Your task to perform on an android device: Open Yahoo.com Image 0: 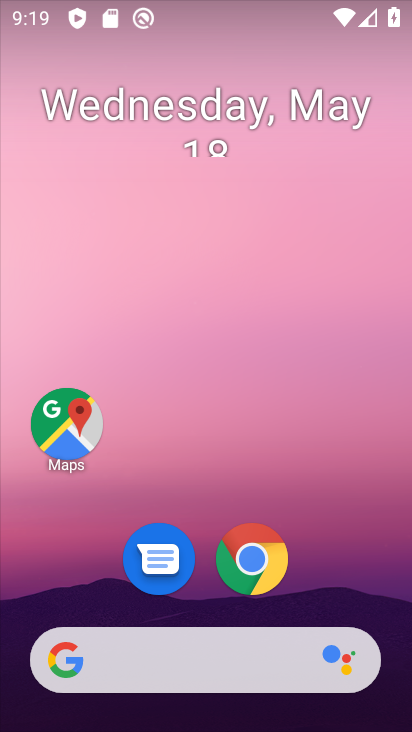
Step 0: drag from (343, 578) to (237, 19)
Your task to perform on an android device: Open Yahoo.com Image 1: 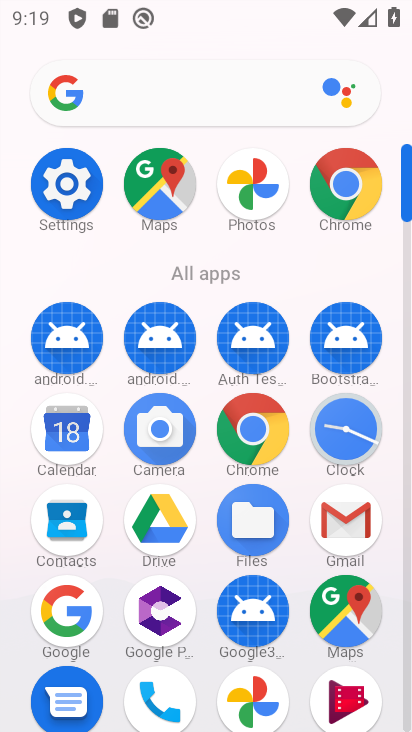
Step 1: drag from (6, 505) to (7, 288)
Your task to perform on an android device: Open Yahoo.com Image 2: 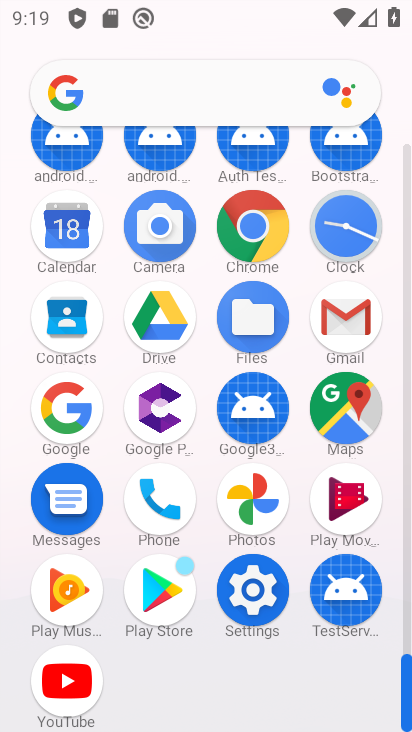
Step 2: click (256, 220)
Your task to perform on an android device: Open Yahoo.com Image 3: 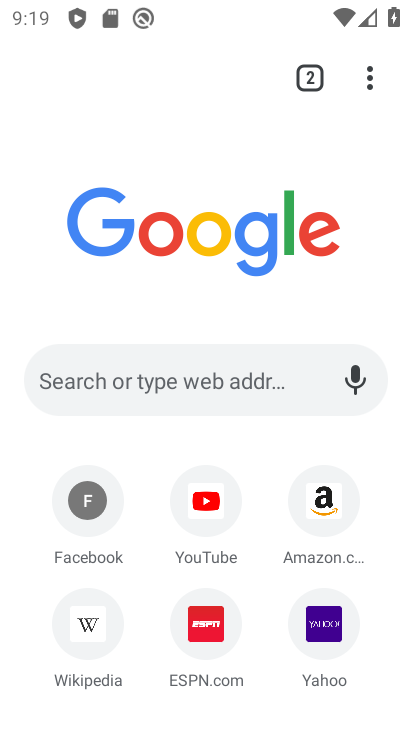
Step 3: click (326, 617)
Your task to perform on an android device: Open Yahoo.com Image 4: 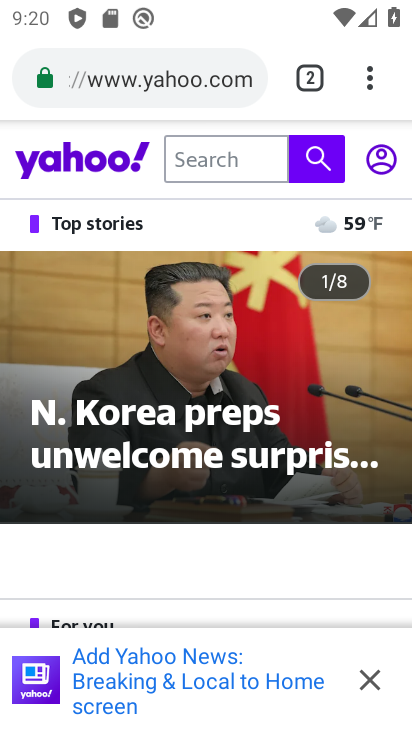
Step 4: task complete